Your task to perform on an android device: Open Google Chrome and click the shortcut for Amazon.com Image 0: 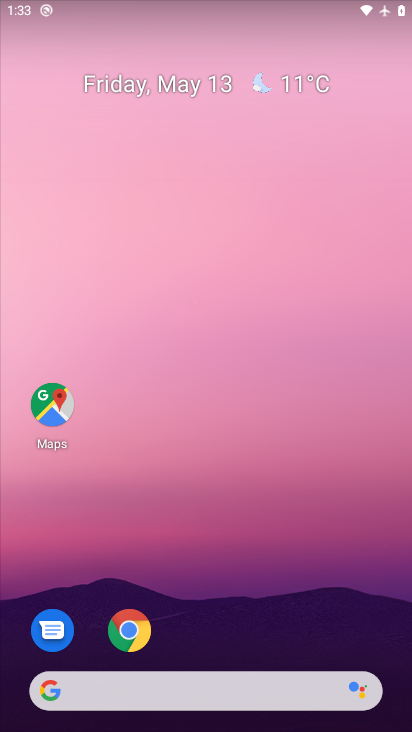
Step 0: drag from (215, 632) to (279, 260)
Your task to perform on an android device: Open Google Chrome and click the shortcut for Amazon.com Image 1: 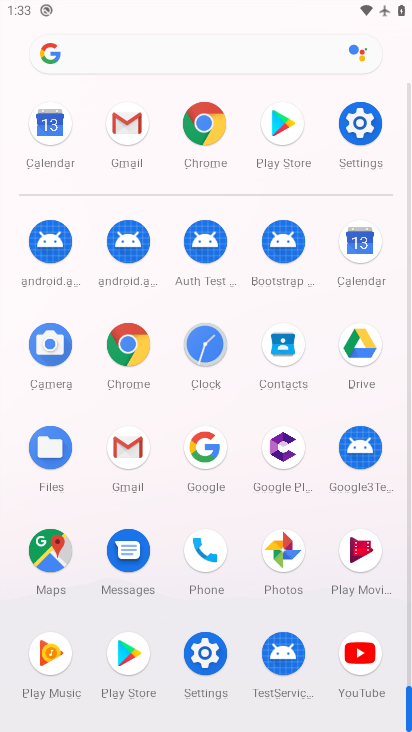
Step 1: click (137, 363)
Your task to perform on an android device: Open Google Chrome and click the shortcut for Amazon.com Image 2: 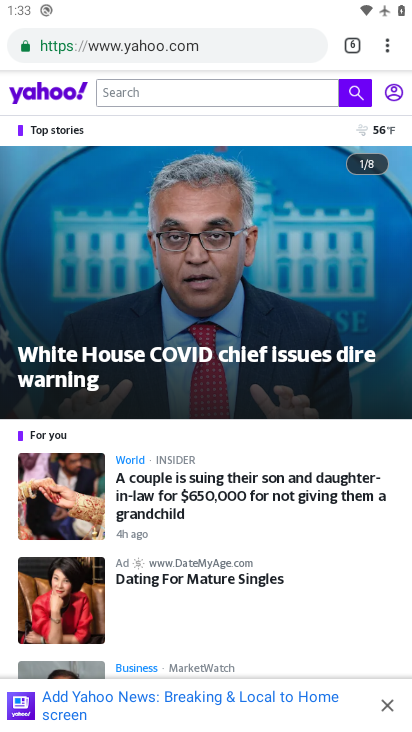
Step 2: click (358, 54)
Your task to perform on an android device: Open Google Chrome and click the shortcut for Amazon.com Image 3: 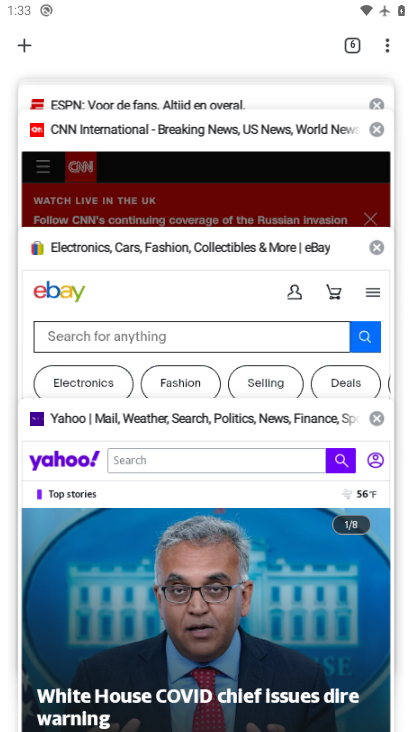
Step 3: click (30, 48)
Your task to perform on an android device: Open Google Chrome and click the shortcut for Amazon.com Image 4: 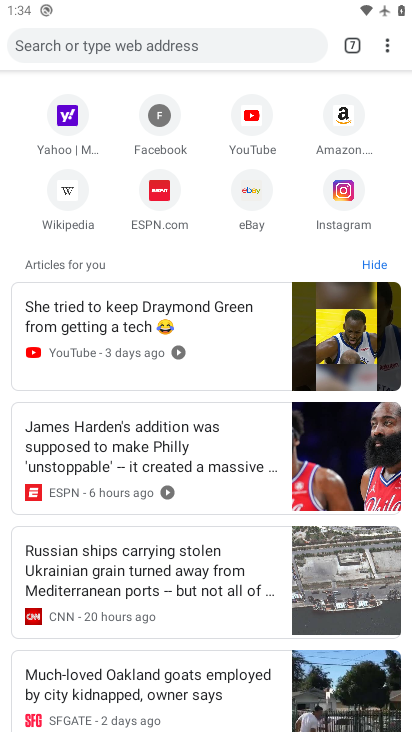
Step 4: click (343, 141)
Your task to perform on an android device: Open Google Chrome and click the shortcut for Amazon.com Image 5: 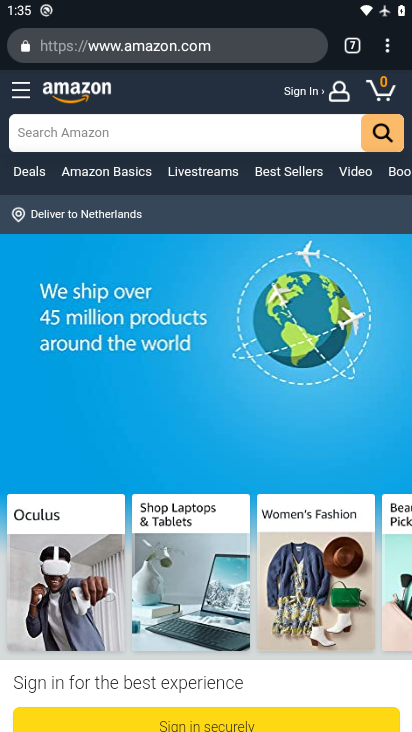
Step 5: task complete